Your task to perform on an android device: open sync settings in chrome Image 0: 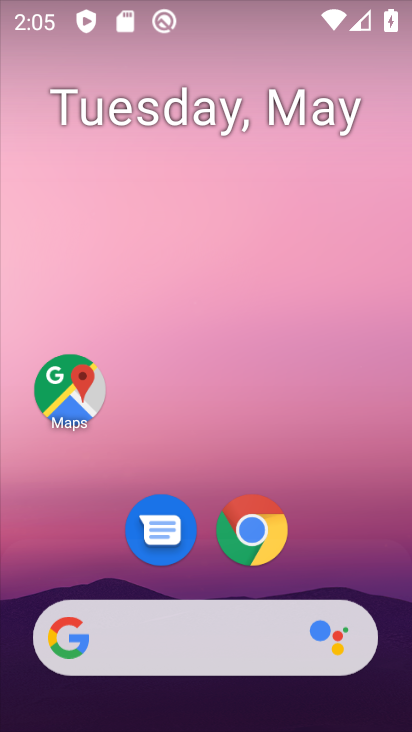
Step 0: click (250, 542)
Your task to perform on an android device: open sync settings in chrome Image 1: 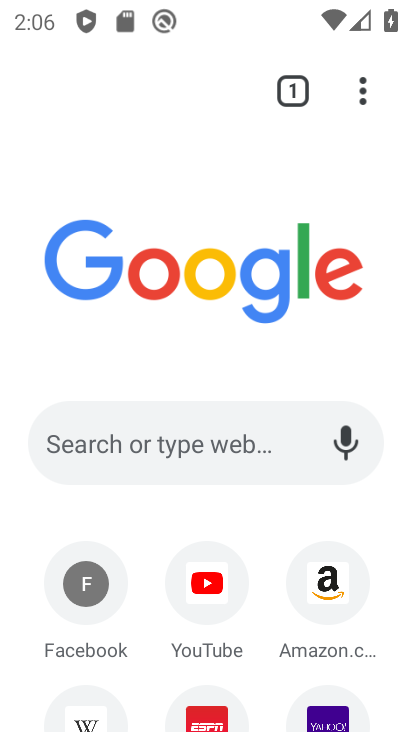
Step 1: drag from (356, 82) to (166, 578)
Your task to perform on an android device: open sync settings in chrome Image 2: 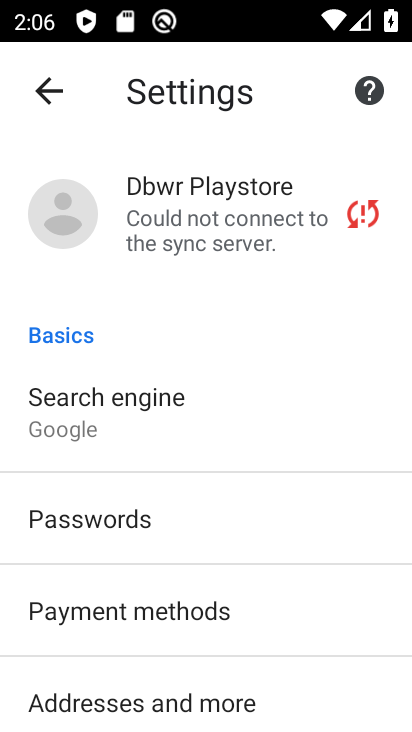
Step 2: click (219, 192)
Your task to perform on an android device: open sync settings in chrome Image 3: 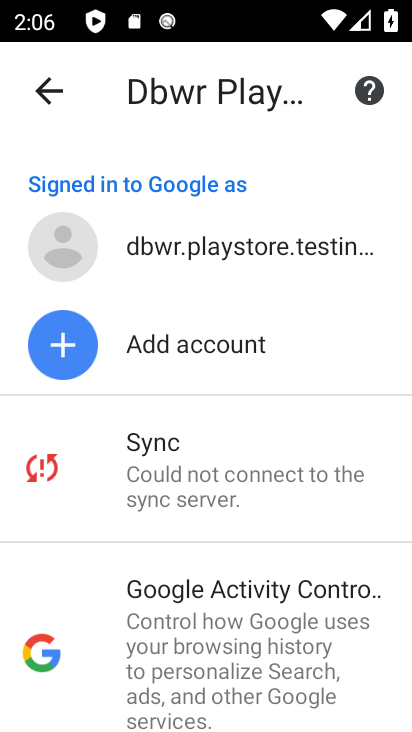
Step 3: click (146, 456)
Your task to perform on an android device: open sync settings in chrome Image 4: 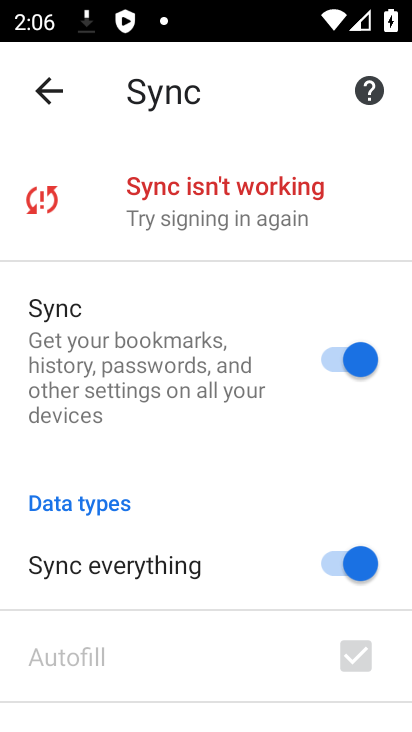
Step 4: task complete